Your task to perform on an android device: turn off notifications settings in the gmail app Image 0: 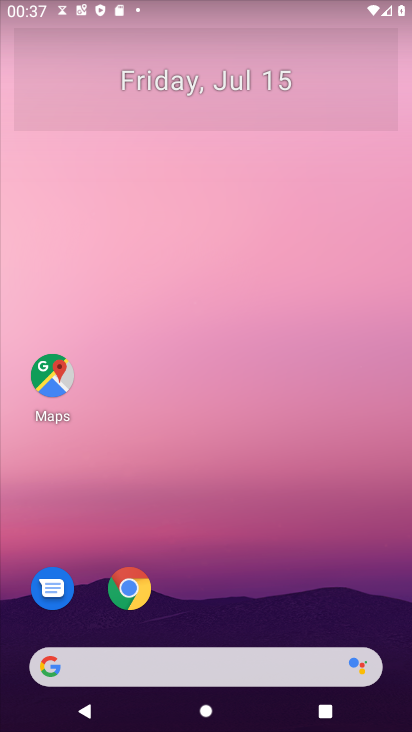
Step 0: drag from (219, 567) to (238, 137)
Your task to perform on an android device: turn off notifications settings in the gmail app Image 1: 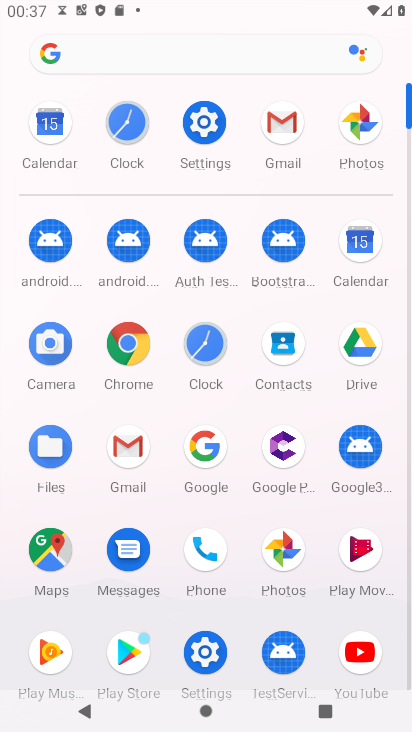
Step 1: click (276, 130)
Your task to perform on an android device: turn off notifications settings in the gmail app Image 2: 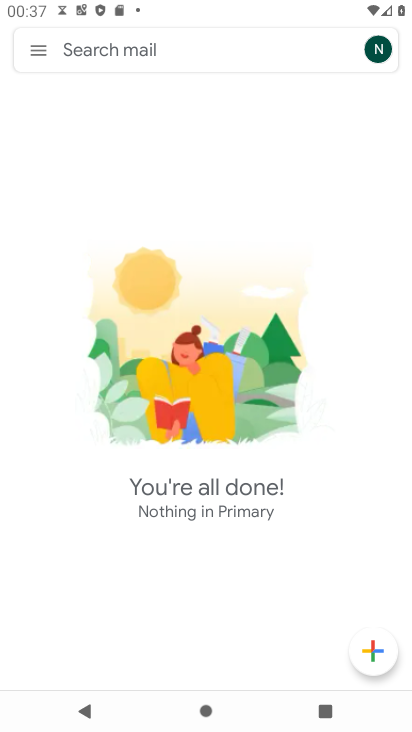
Step 2: click (39, 49)
Your task to perform on an android device: turn off notifications settings in the gmail app Image 3: 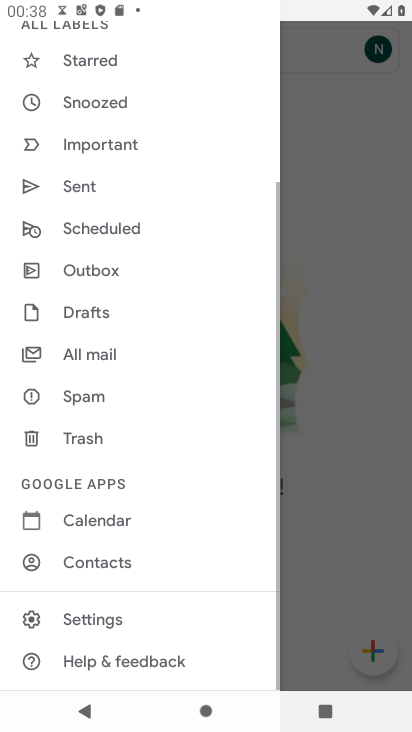
Step 3: click (100, 625)
Your task to perform on an android device: turn off notifications settings in the gmail app Image 4: 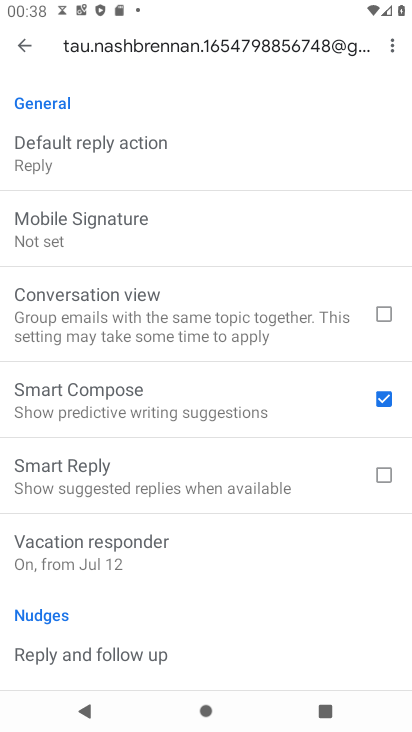
Step 4: drag from (127, 654) to (235, 192)
Your task to perform on an android device: turn off notifications settings in the gmail app Image 5: 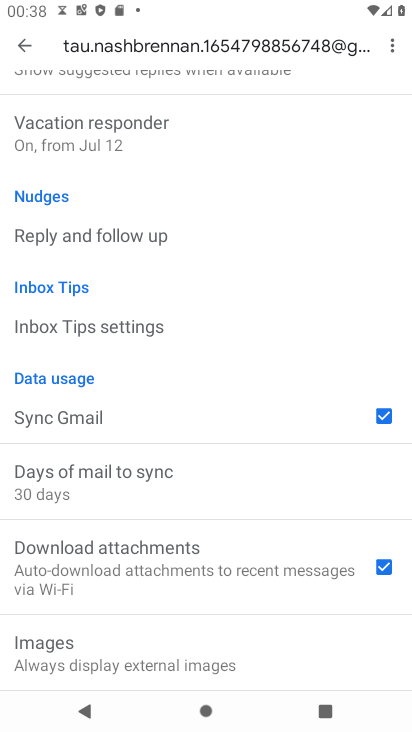
Step 5: drag from (160, 636) to (190, 698)
Your task to perform on an android device: turn off notifications settings in the gmail app Image 6: 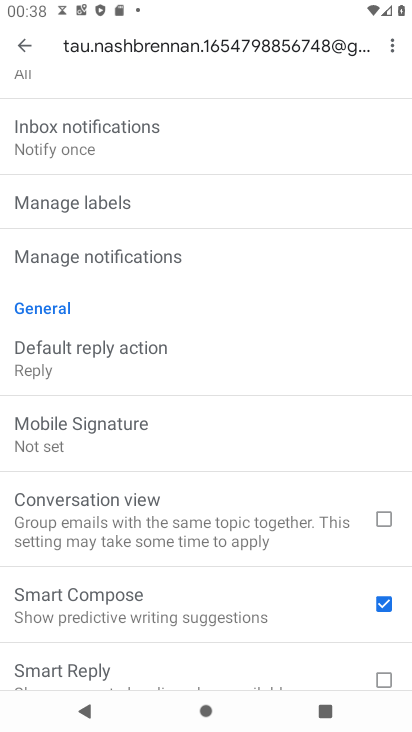
Step 6: drag from (234, 145) to (195, 588)
Your task to perform on an android device: turn off notifications settings in the gmail app Image 7: 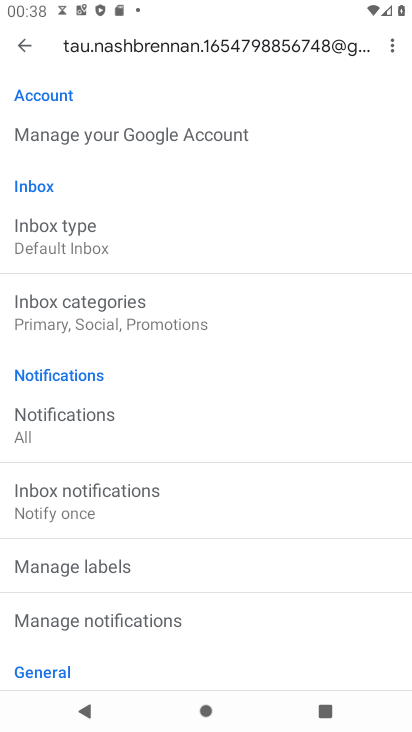
Step 7: click (123, 611)
Your task to perform on an android device: turn off notifications settings in the gmail app Image 8: 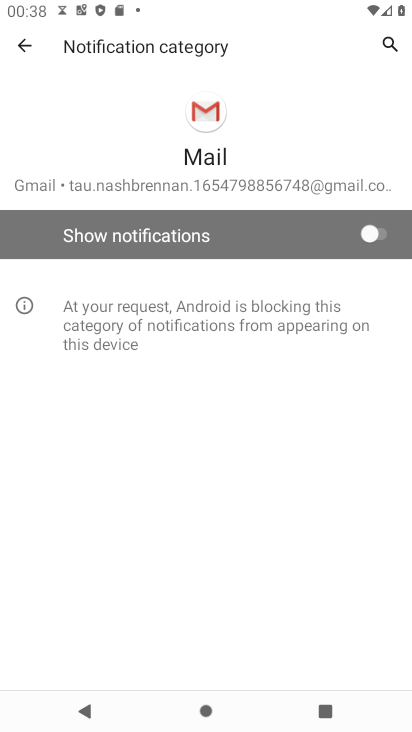
Step 8: task complete